Your task to perform on an android device: empty trash in google photos Image 0: 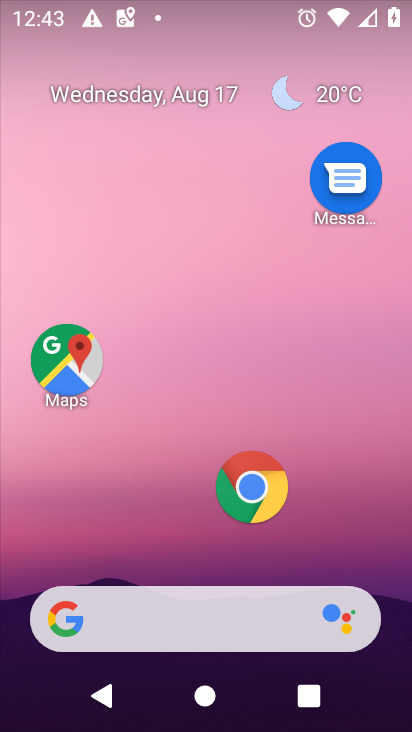
Step 0: drag from (125, 552) to (213, 0)
Your task to perform on an android device: empty trash in google photos Image 1: 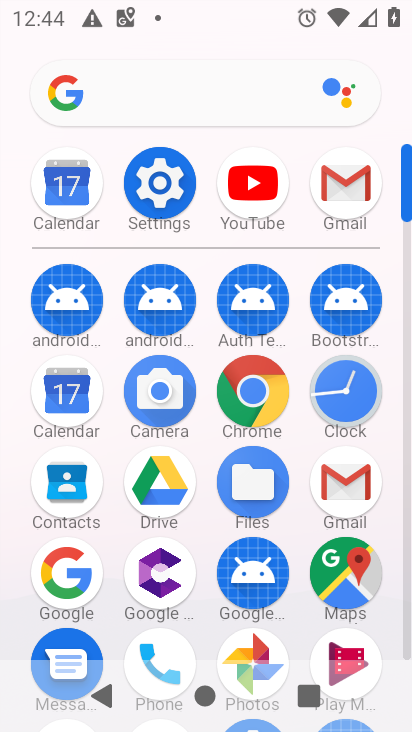
Step 1: click (255, 640)
Your task to perform on an android device: empty trash in google photos Image 2: 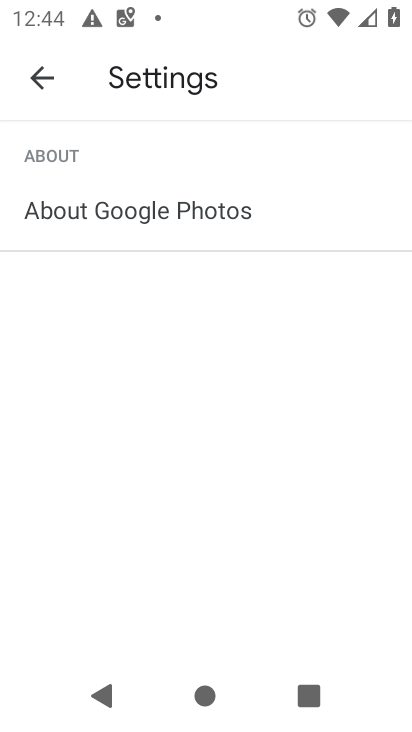
Step 2: press back button
Your task to perform on an android device: empty trash in google photos Image 3: 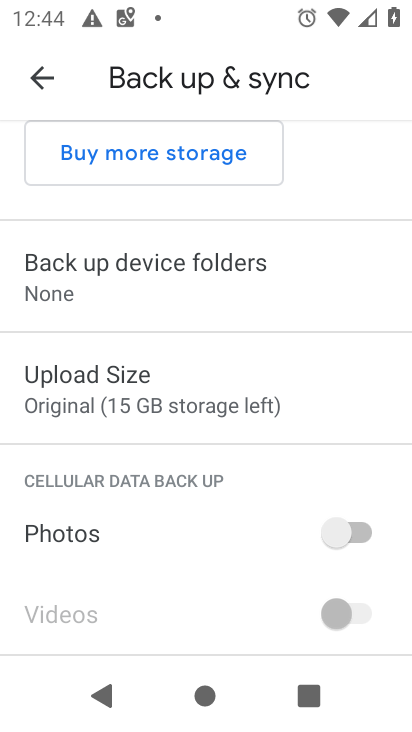
Step 3: press back button
Your task to perform on an android device: empty trash in google photos Image 4: 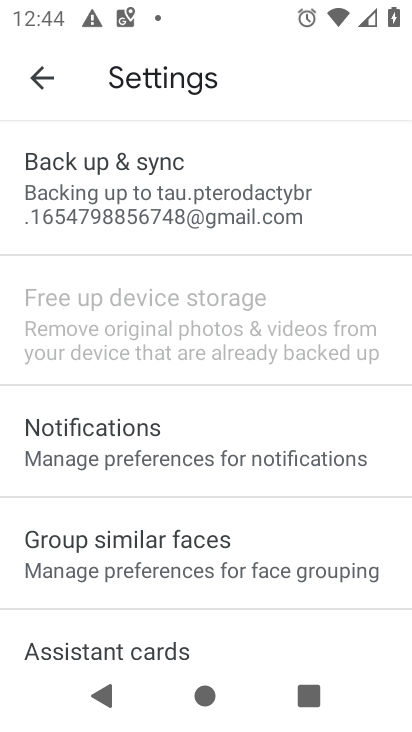
Step 4: press back button
Your task to perform on an android device: empty trash in google photos Image 5: 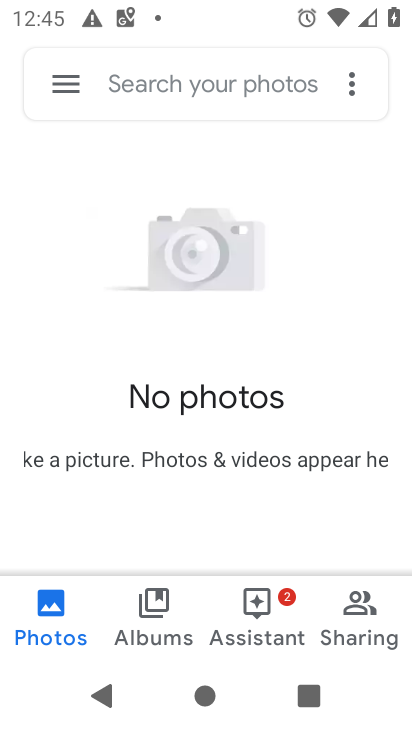
Step 5: click (71, 77)
Your task to perform on an android device: empty trash in google photos Image 6: 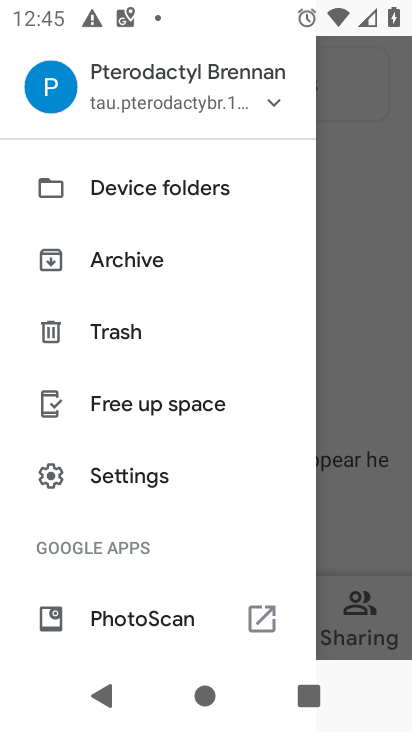
Step 6: click (141, 338)
Your task to perform on an android device: empty trash in google photos Image 7: 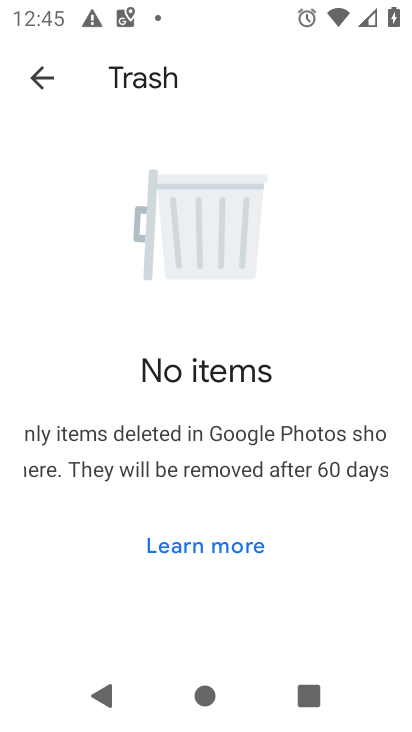
Step 7: task complete